Your task to perform on an android device: Go to Google Image 0: 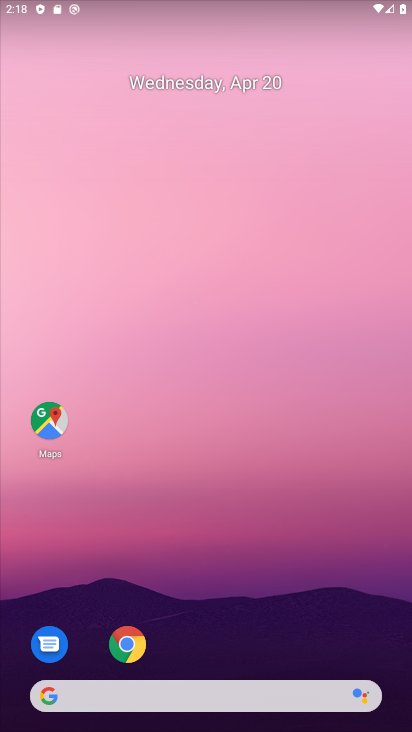
Step 0: click (125, 643)
Your task to perform on an android device: Go to Google Image 1: 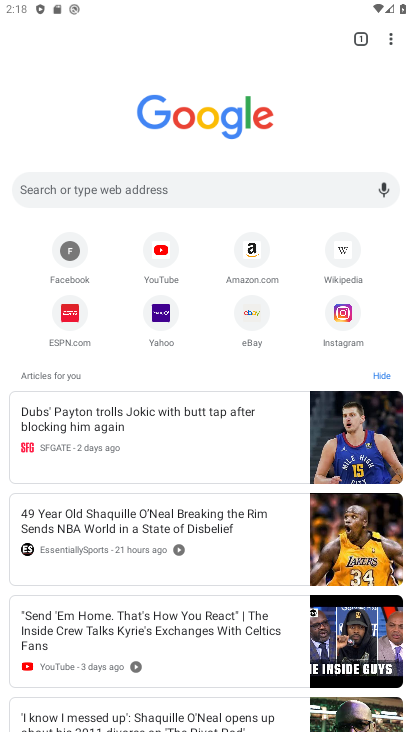
Step 1: task complete